Your task to perform on an android device: change keyboard looks Image 0: 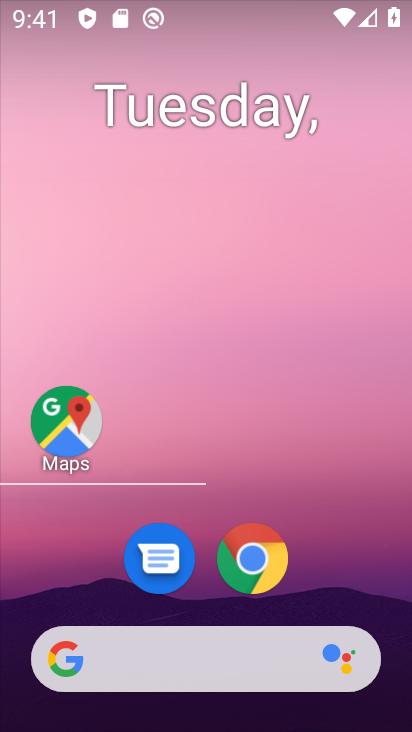
Step 0: click (80, 48)
Your task to perform on an android device: change keyboard looks Image 1: 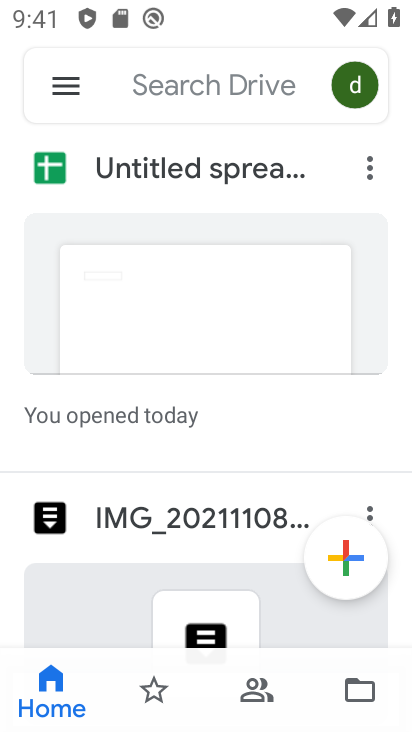
Step 1: press back button
Your task to perform on an android device: change keyboard looks Image 2: 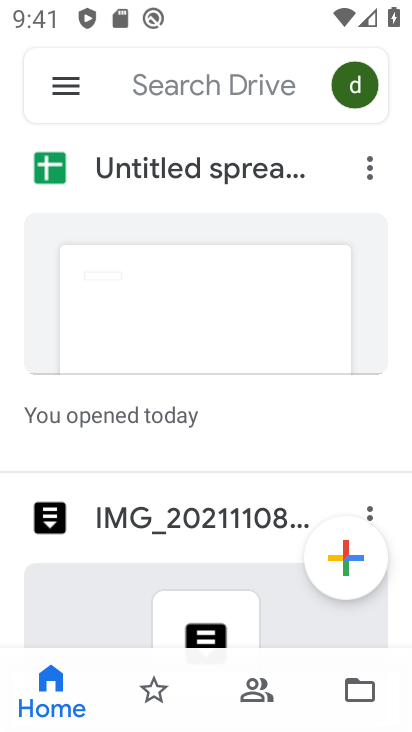
Step 2: press back button
Your task to perform on an android device: change keyboard looks Image 3: 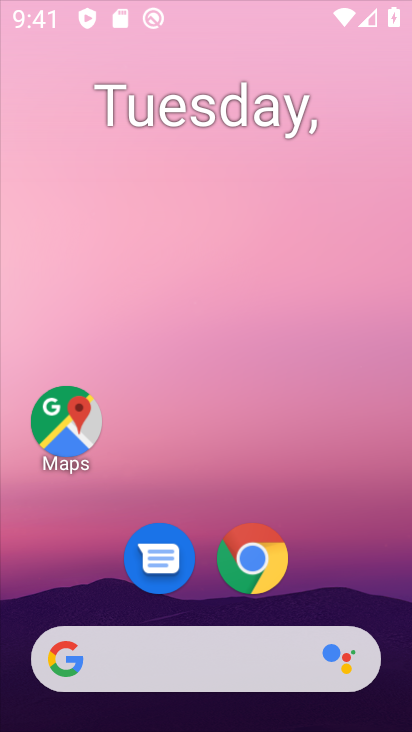
Step 3: press back button
Your task to perform on an android device: change keyboard looks Image 4: 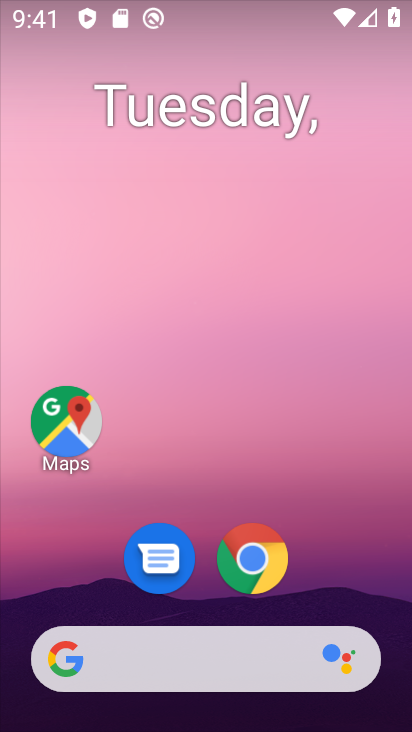
Step 4: drag from (335, 535) to (355, 18)
Your task to perform on an android device: change keyboard looks Image 5: 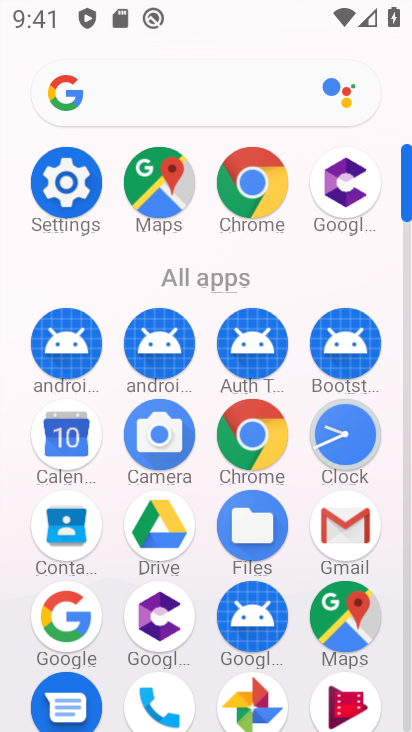
Step 5: click (57, 181)
Your task to perform on an android device: change keyboard looks Image 6: 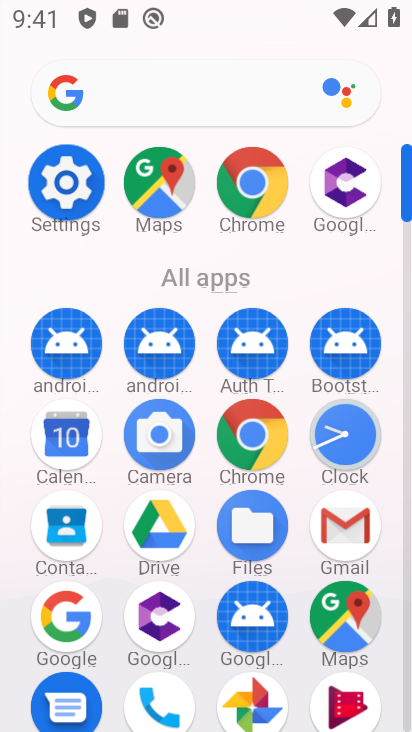
Step 6: click (58, 180)
Your task to perform on an android device: change keyboard looks Image 7: 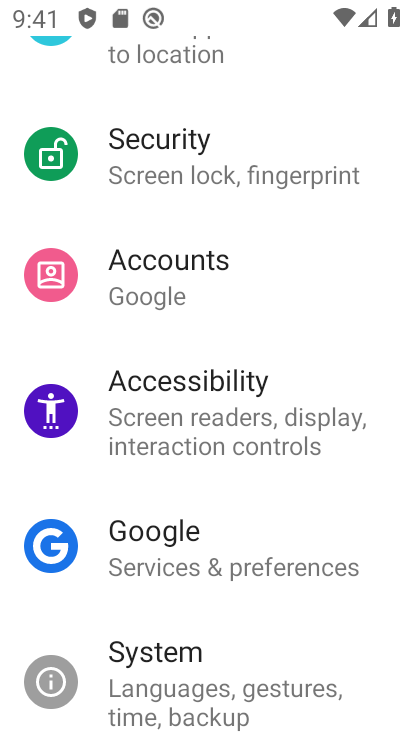
Step 7: drag from (227, 624) to (124, 138)
Your task to perform on an android device: change keyboard looks Image 8: 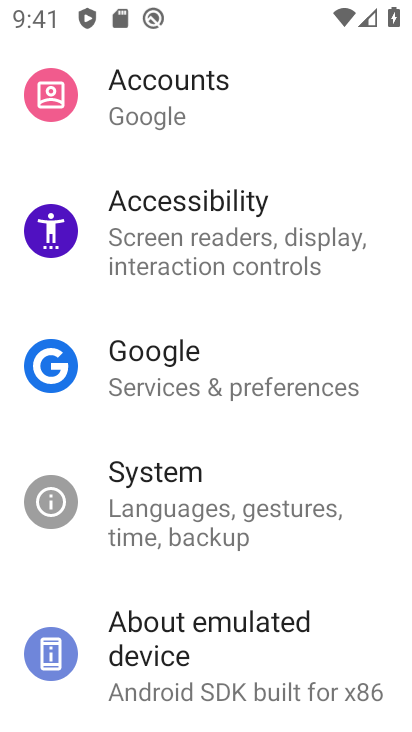
Step 8: click (183, 498)
Your task to perform on an android device: change keyboard looks Image 9: 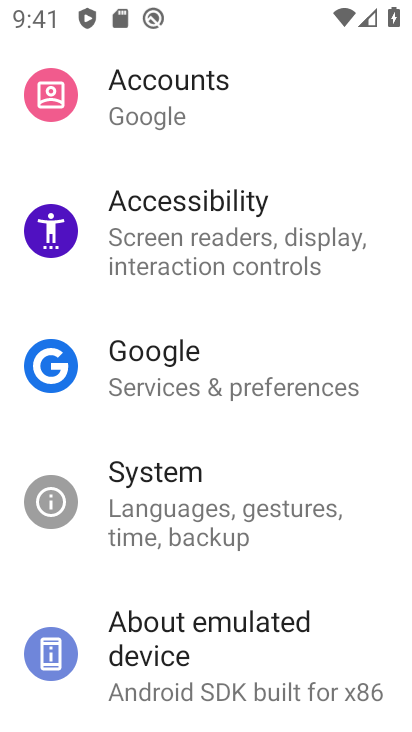
Step 9: click (201, 483)
Your task to perform on an android device: change keyboard looks Image 10: 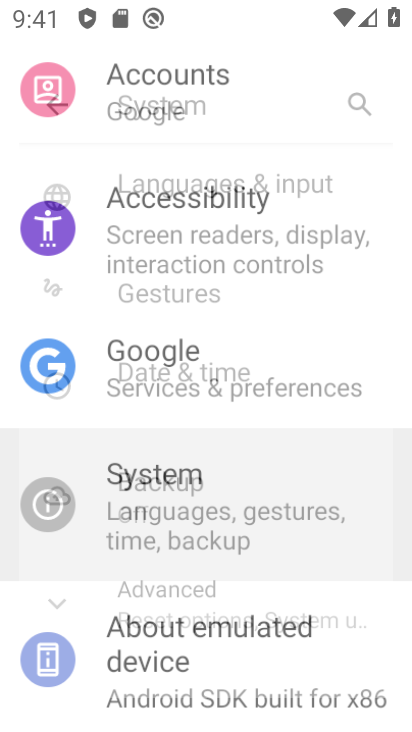
Step 10: click (203, 502)
Your task to perform on an android device: change keyboard looks Image 11: 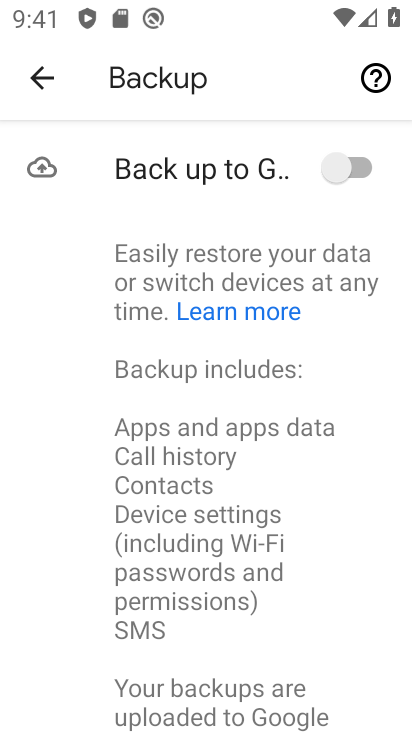
Step 11: click (38, 85)
Your task to perform on an android device: change keyboard looks Image 12: 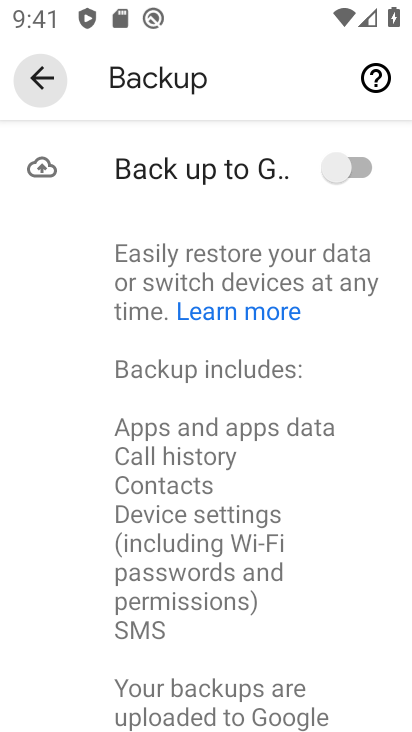
Step 12: click (43, 73)
Your task to perform on an android device: change keyboard looks Image 13: 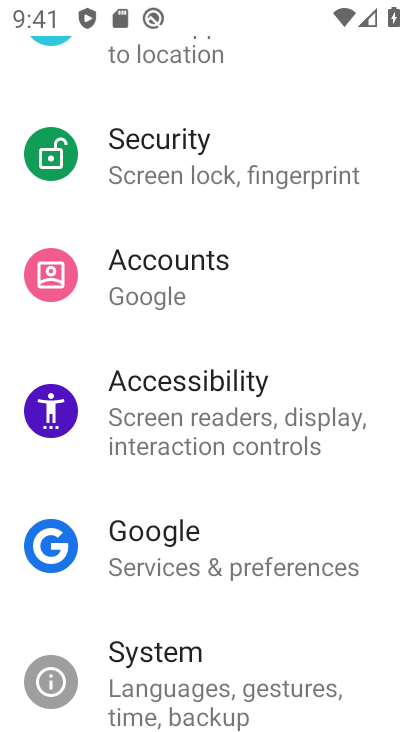
Step 13: click (174, 681)
Your task to perform on an android device: change keyboard looks Image 14: 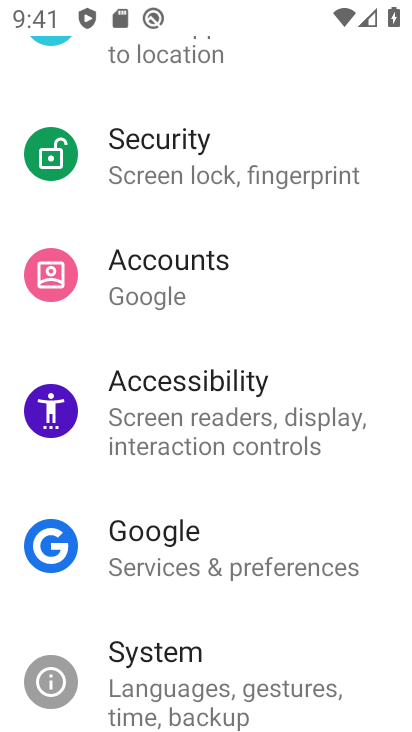
Step 14: click (178, 683)
Your task to perform on an android device: change keyboard looks Image 15: 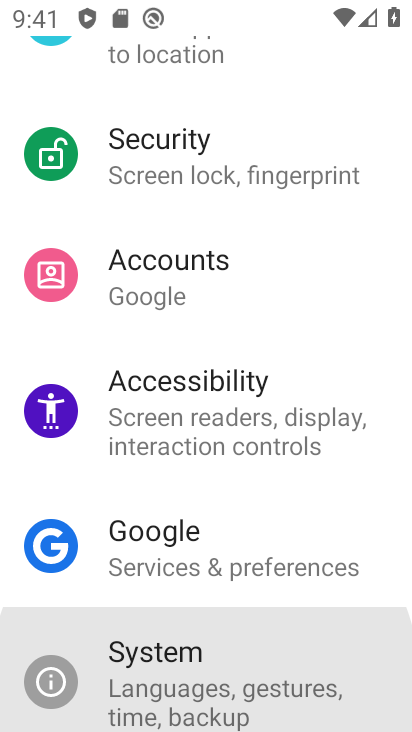
Step 15: click (211, 656)
Your task to perform on an android device: change keyboard looks Image 16: 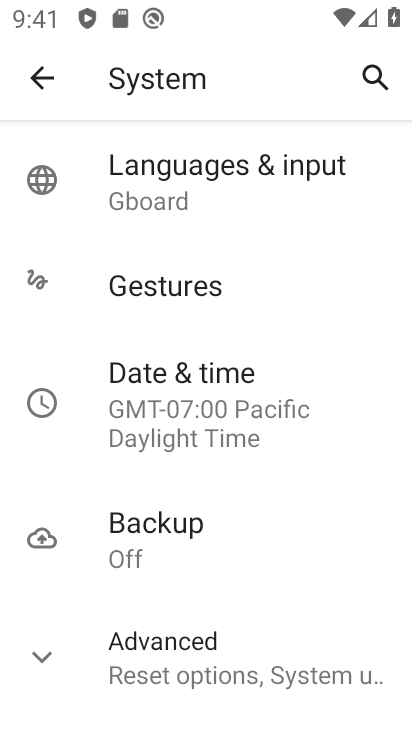
Step 16: click (145, 191)
Your task to perform on an android device: change keyboard looks Image 17: 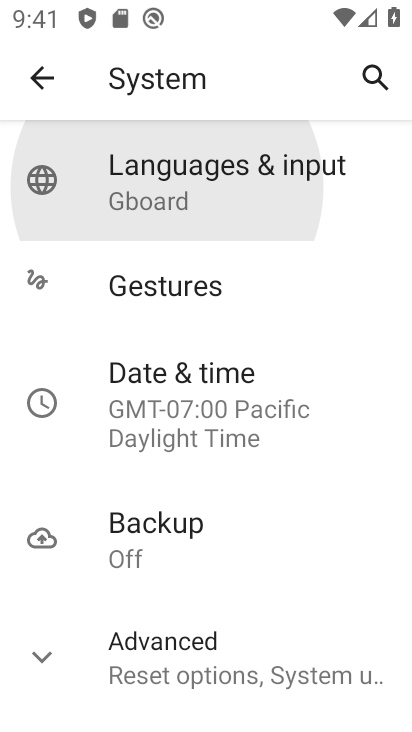
Step 17: click (146, 189)
Your task to perform on an android device: change keyboard looks Image 18: 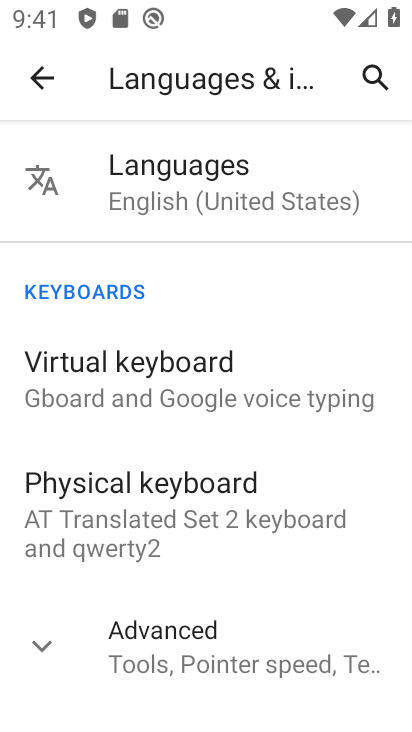
Step 18: click (166, 196)
Your task to perform on an android device: change keyboard looks Image 19: 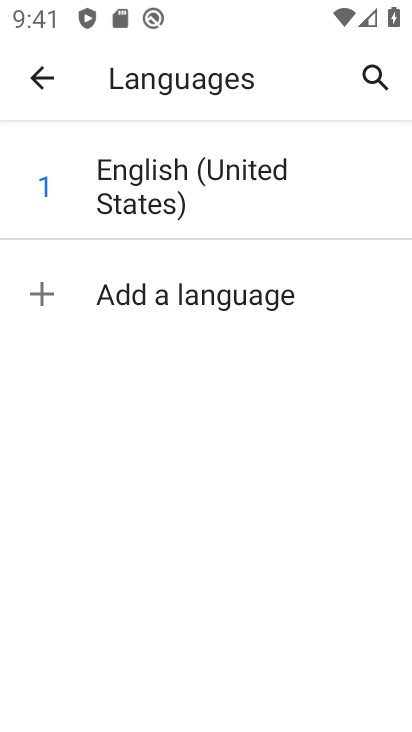
Step 19: click (40, 77)
Your task to perform on an android device: change keyboard looks Image 20: 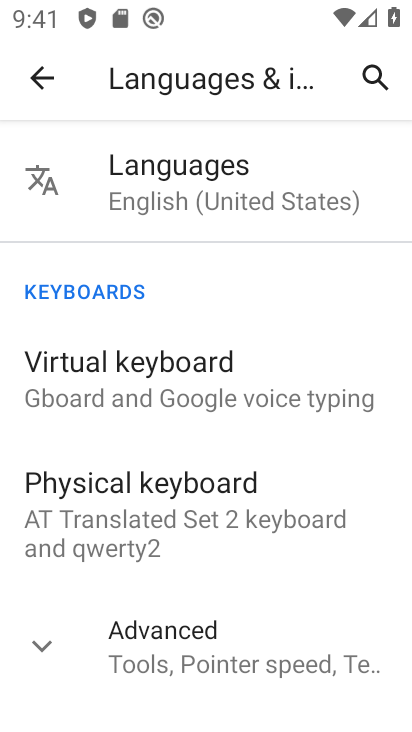
Step 20: click (110, 384)
Your task to perform on an android device: change keyboard looks Image 21: 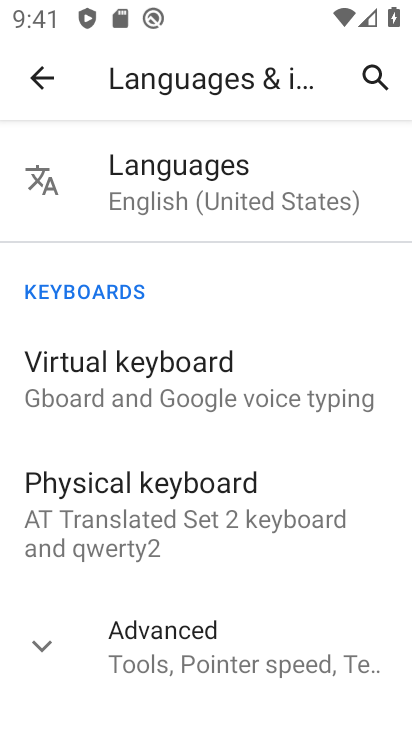
Step 21: click (110, 384)
Your task to perform on an android device: change keyboard looks Image 22: 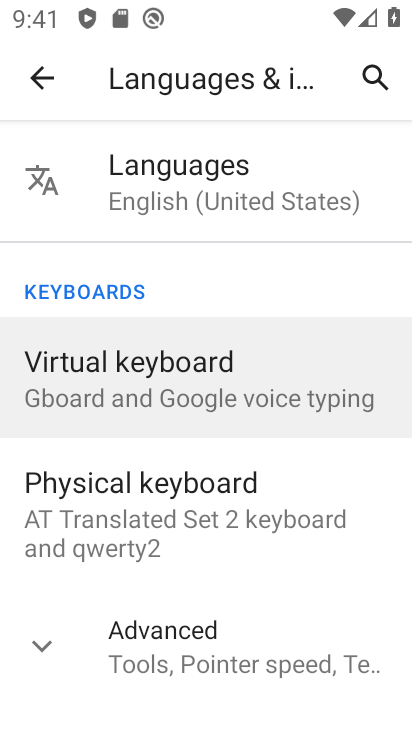
Step 22: click (110, 384)
Your task to perform on an android device: change keyboard looks Image 23: 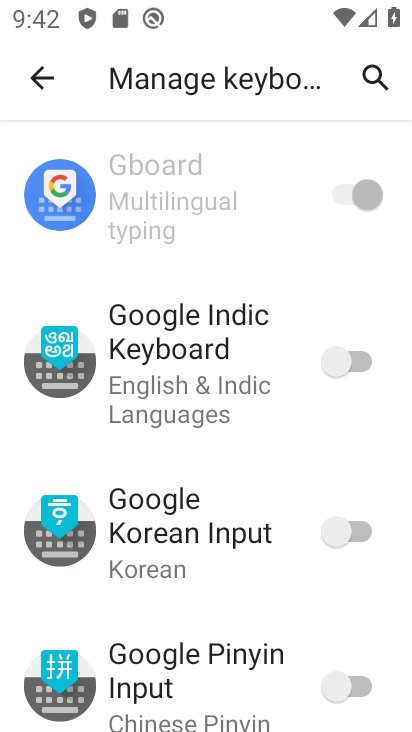
Step 23: click (160, 210)
Your task to perform on an android device: change keyboard looks Image 24: 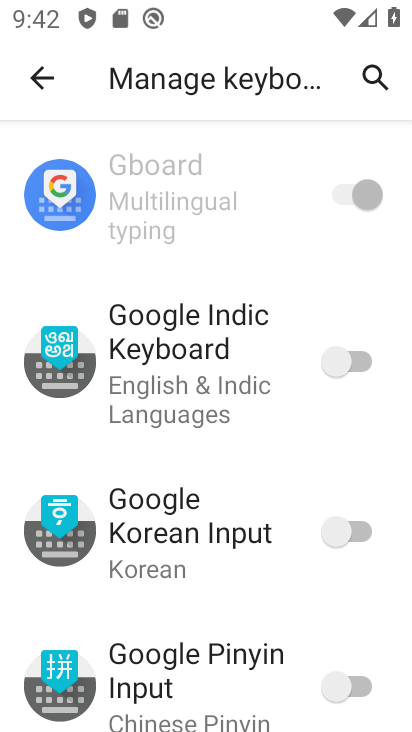
Step 24: click (160, 210)
Your task to perform on an android device: change keyboard looks Image 25: 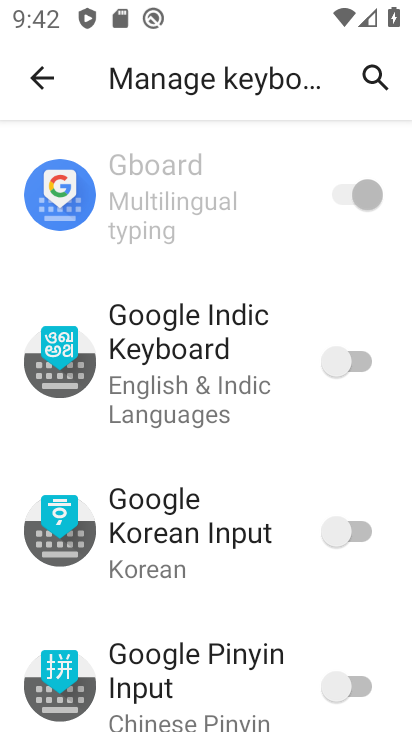
Step 25: click (160, 210)
Your task to perform on an android device: change keyboard looks Image 26: 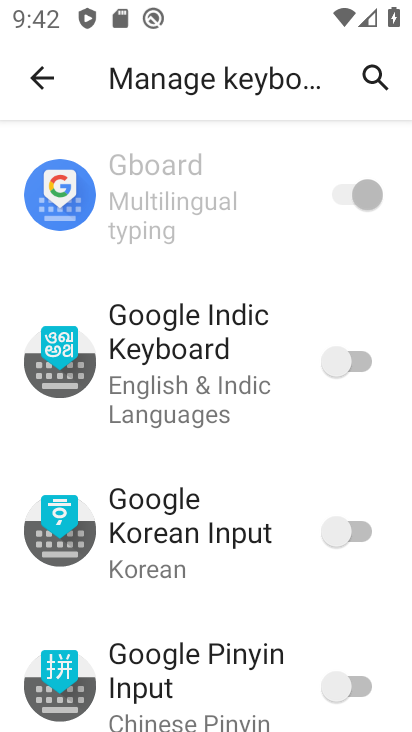
Step 26: click (159, 209)
Your task to perform on an android device: change keyboard looks Image 27: 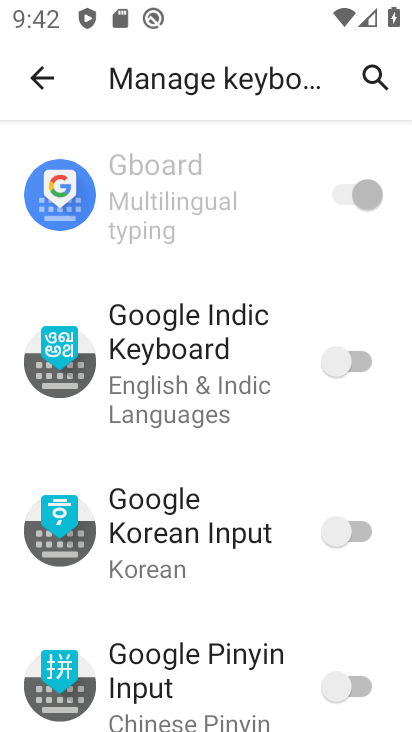
Step 27: task complete